Your task to perform on an android device: make emails show in primary in the gmail app Image 0: 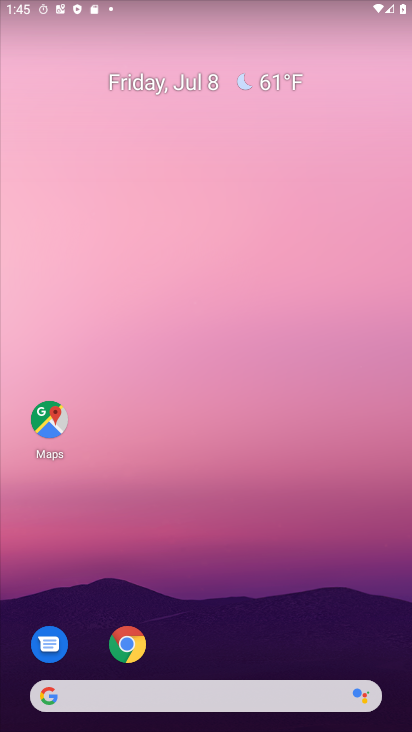
Step 0: drag from (197, 171) to (200, 67)
Your task to perform on an android device: make emails show in primary in the gmail app Image 1: 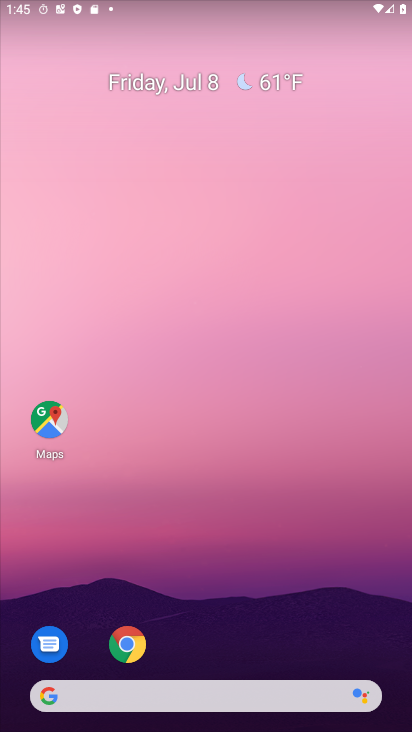
Step 1: drag from (206, 495) to (235, 135)
Your task to perform on an android device: make emails show in primary in the gmail app Image 2: 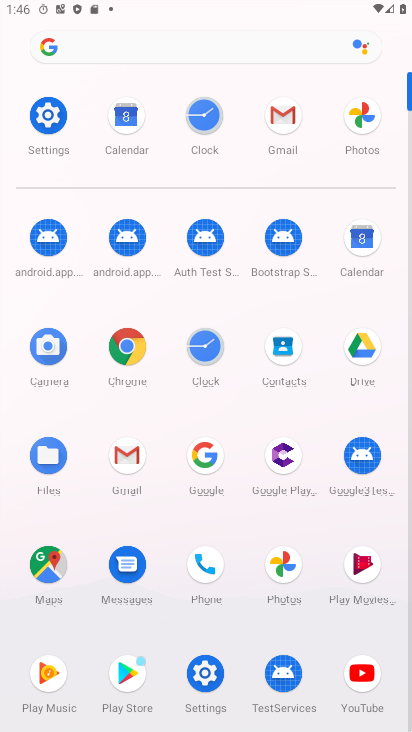
Step 2: click (295, 121)
Your task to perform on an android device: make emails show in primary in the gmail app Image 3: 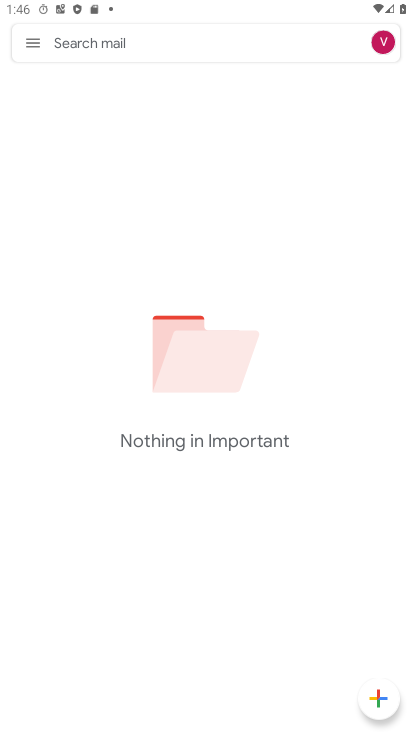
Step 3: click (28, 41)
Your task to perform on an android device: make emails show in primary in the gmail app Image 4: 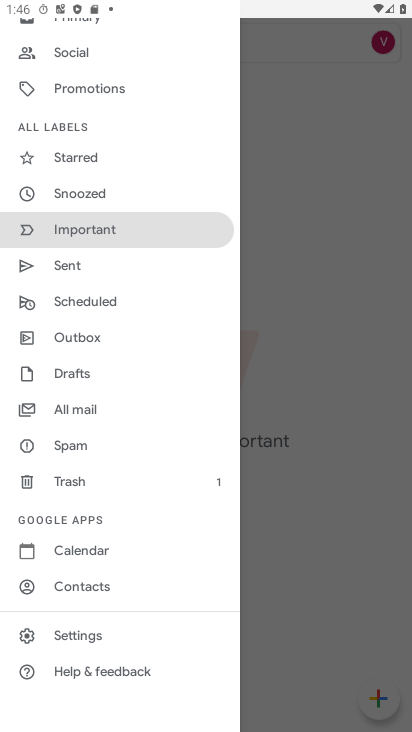
Step 4: click (57, 649)
Your task to perform on an android device: make emails show in primary in the gmail app Image 5: 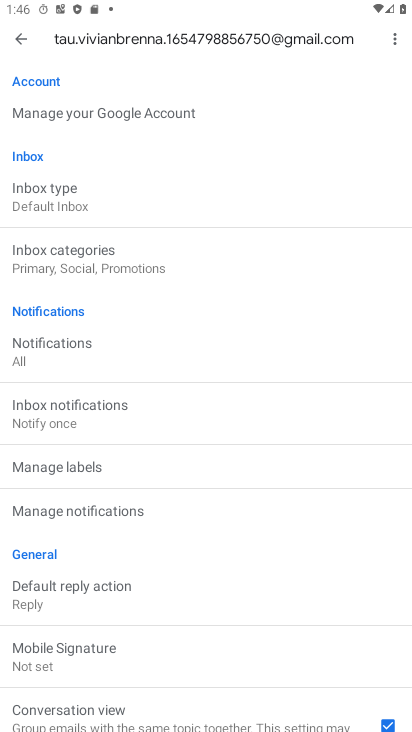
Step 5: click (112, 264)
Your task to perform on an android device: make emails show in primary in the gmail app Image 6: 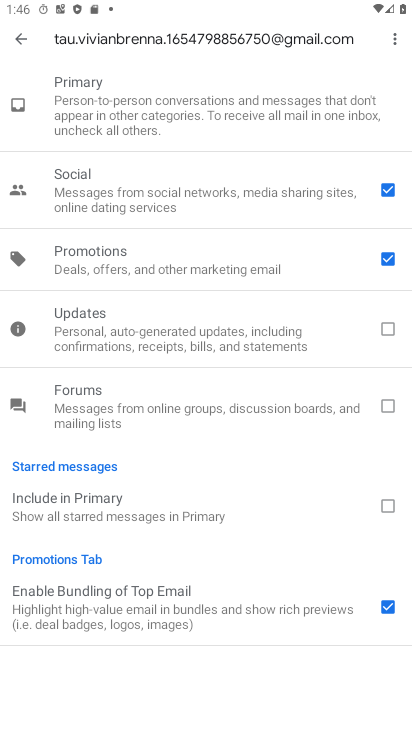
Step 6: click (388, 265)
Your task to perform on an android device: make emails show in primary in the gmail app Image 7: 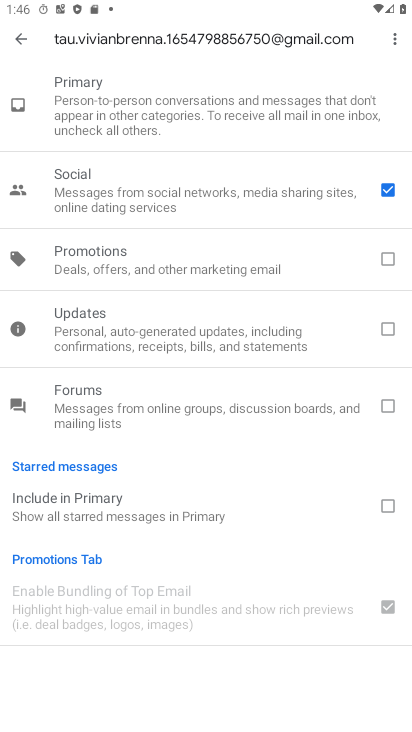
Step 7: click (389, 194)
Your task to perform on an android device: make emails show in primary in the gmail app Image 8: 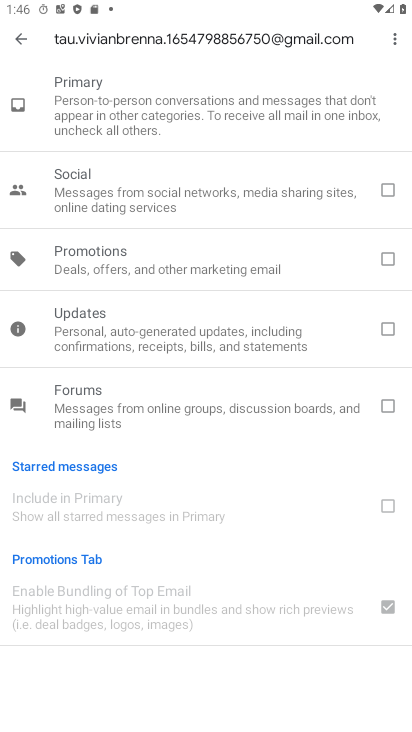
Step 8: click (16, 41)
Your task to perform on an android device: make emails show in primary in the gmail app Image 9: 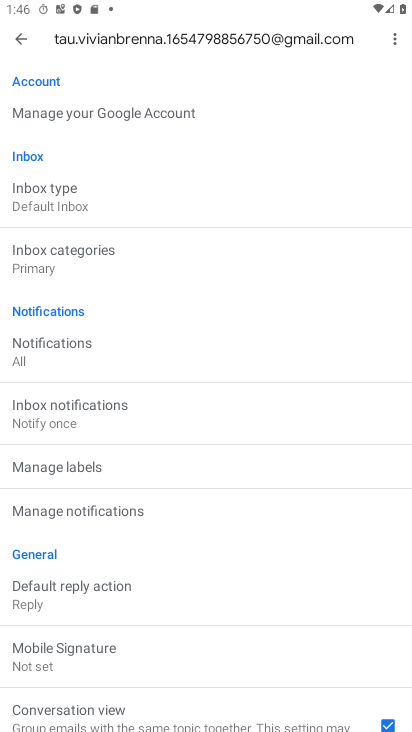
Step 9: task complete